Your task to perform on an android device: delete location history Image 0: 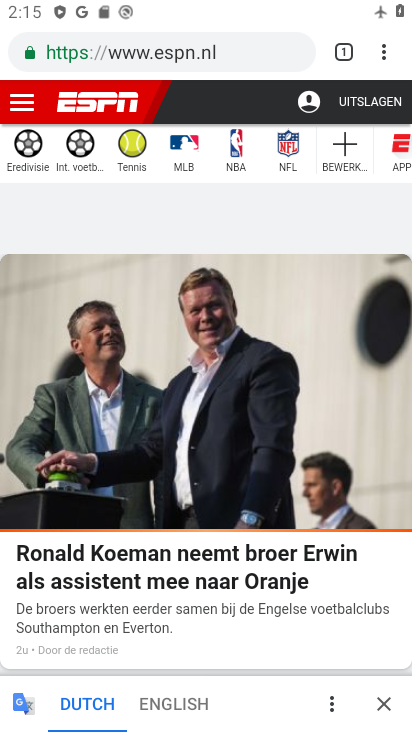
Step 0: press home button
Your task to perform on an android device: delete location history Image 1: 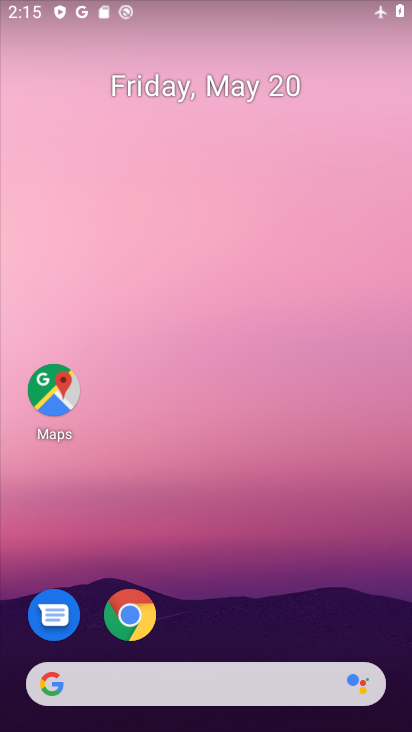
Step 1: click (62, 396)
Your task to perform on an android device: delete location history Image 2: 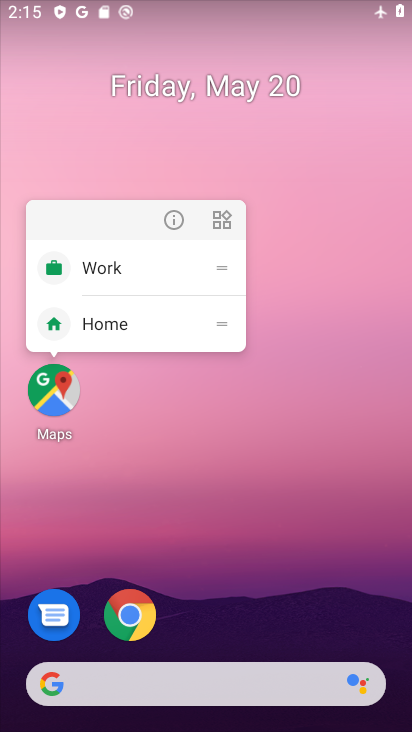
Step 2: click (62, 396)
Your task to perform on an android device: delete location history Image 3: 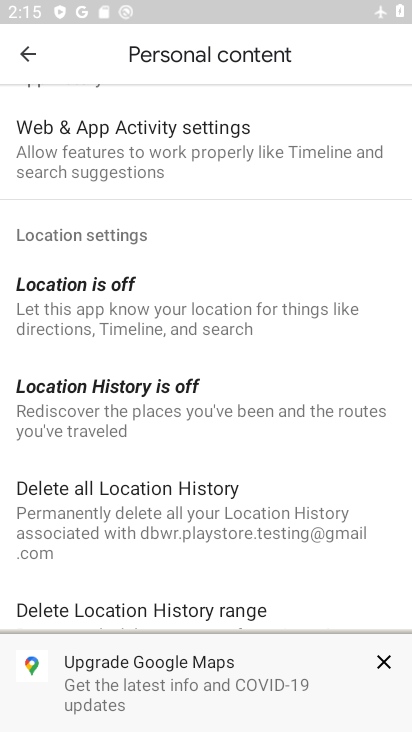
Step 3: click (139, 497)
Your task to perform on an android device: delete location history Image 4: 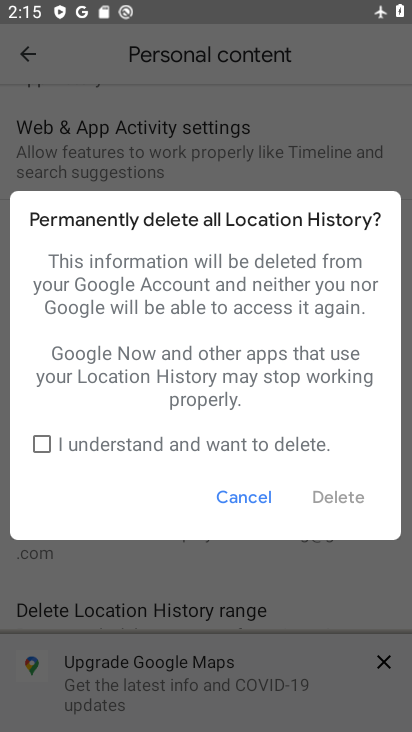
Step 4: click (162, 449)
Your task to perform on an android device: delete location history Image 5: 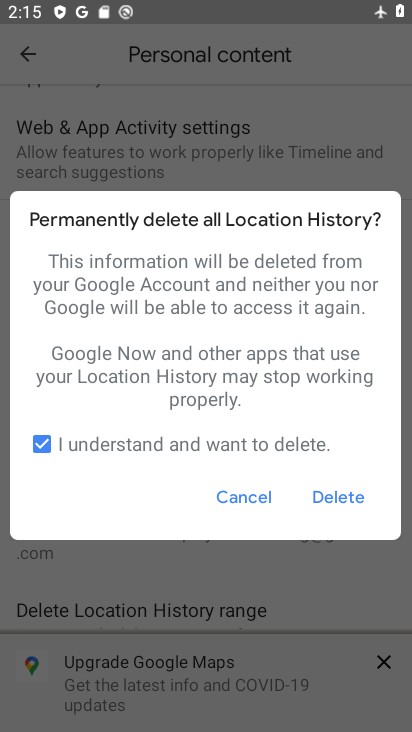
Step 5: click (364, 508)
Your task to perform on an android device: delete location history Image 6: 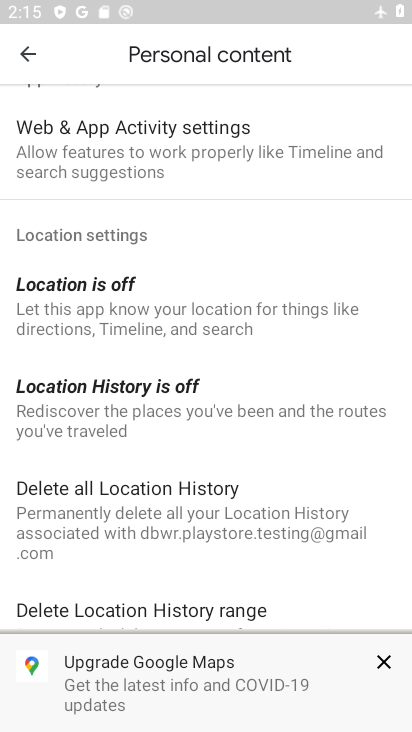
Step 6: task complete